Your task to perform on an android device: What is the recent news? Image 0: 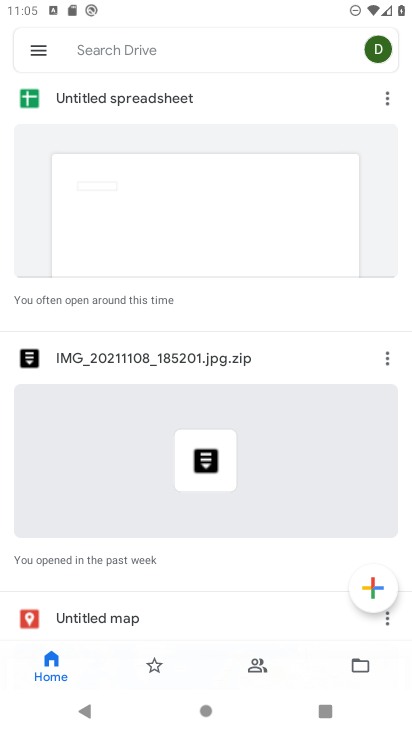
Step 0: press home button
Your task to perform on an android device: What is the recent news? Image 1: 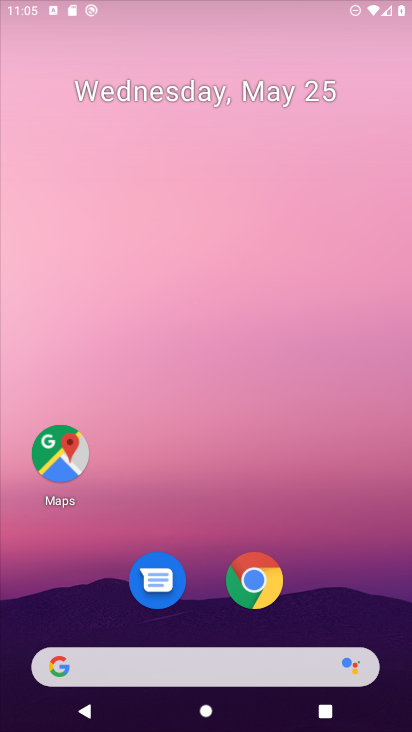
Step 1: click (151, 678)
Your task to perform on an android device: What is the recent news? Image 2: 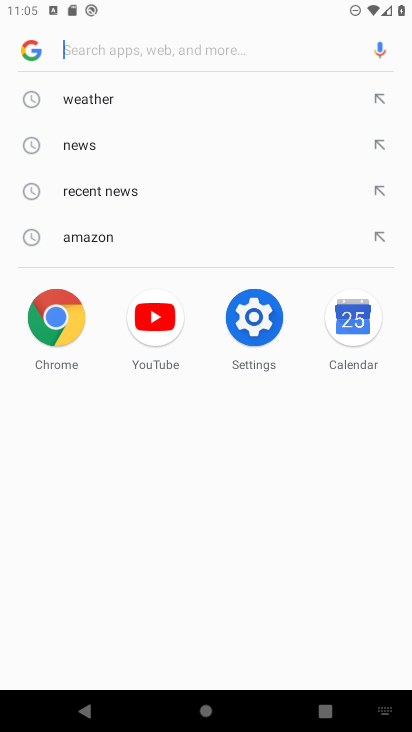
Step 2: click (89, 134)
Your task to perform on an android device: What is the recent news? Image 3: 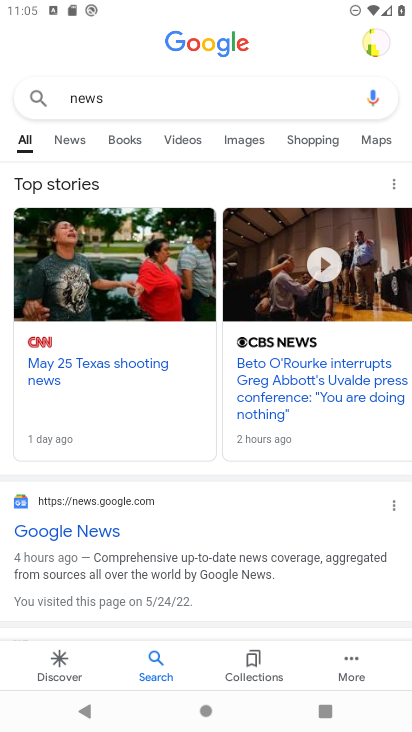
Step 3: task complete